Your task to perform on an android device: install app "Mercado Libre" Image 0: 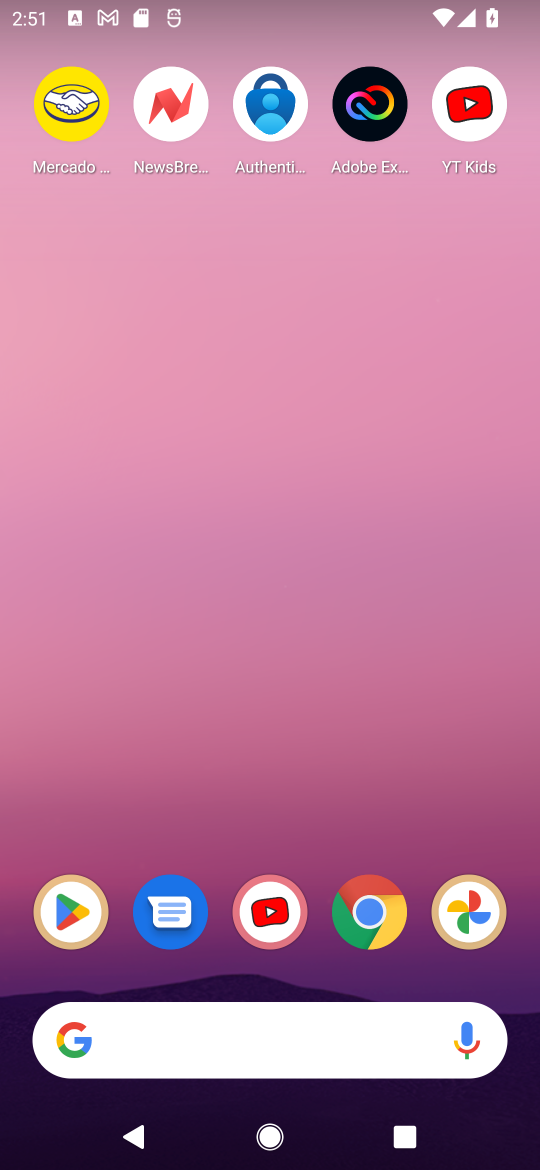
Step 0: click (79, 910)
Your task to perform on an android device: install app "Mercado Libre" Image 1: 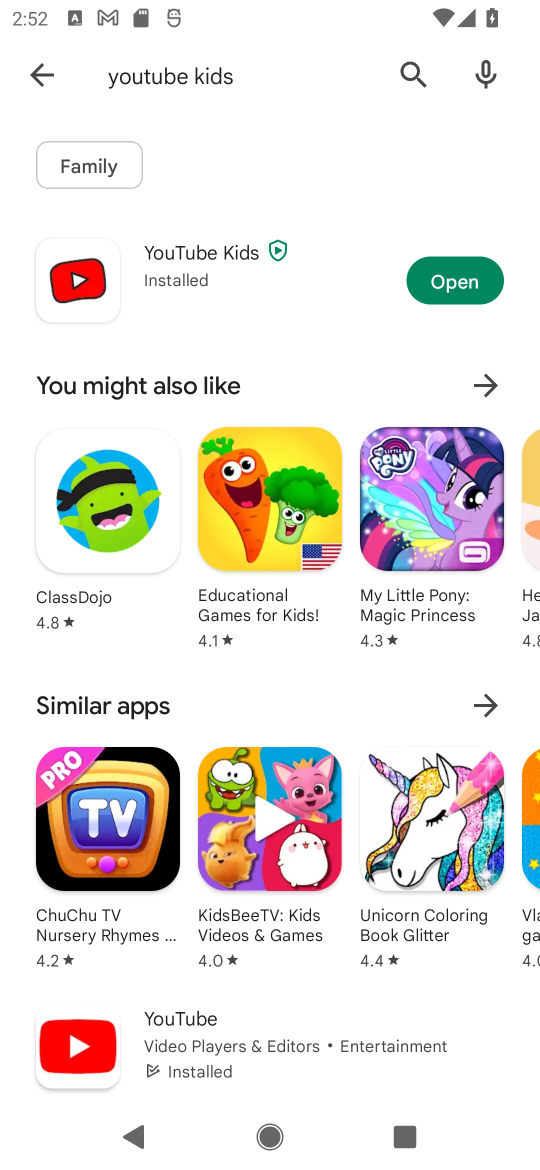
Step 1: click (403, 86)
Your task to perform on an android device: install app "Mercado Libre" Image 2: 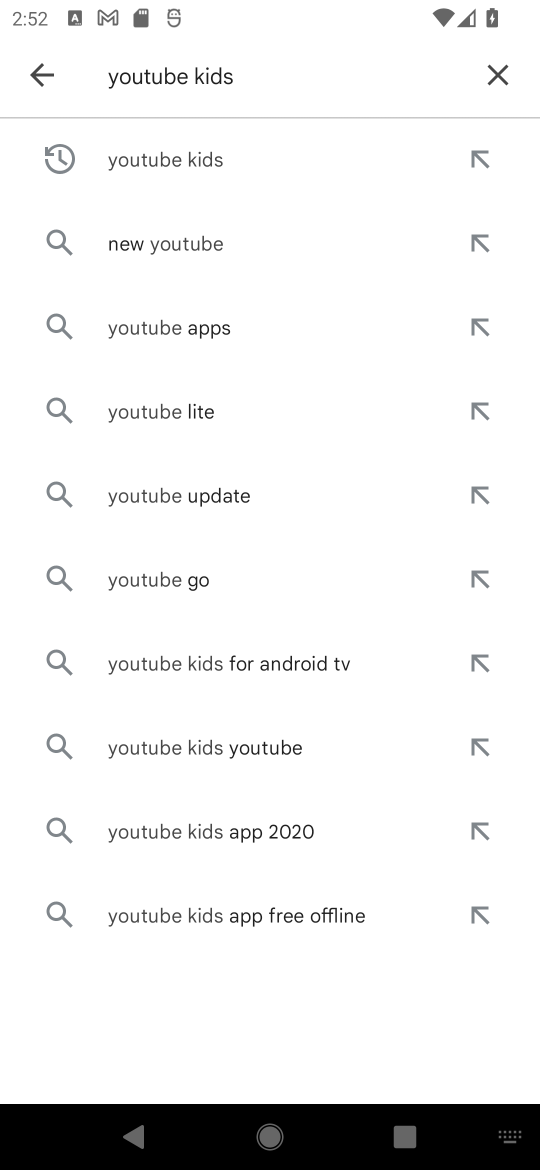
Step 2: click (508, 75)
Your task to perform on an android device: install app "Mercado Libre" Image 3: 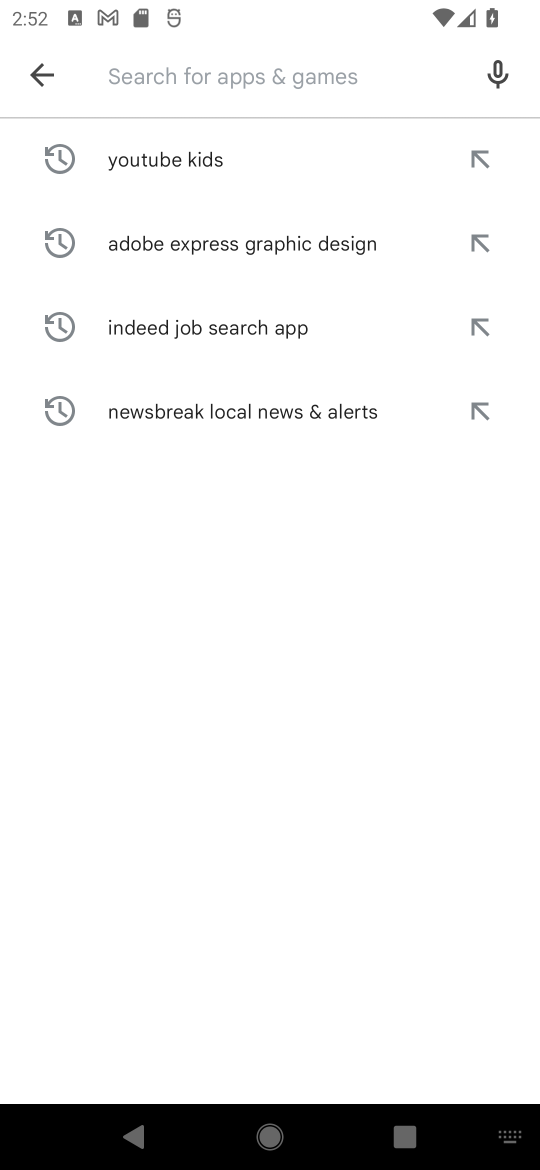
Step 3: click (181, 76)
Your task to perform on an android device: install app "Mercado Libre" Image 4: 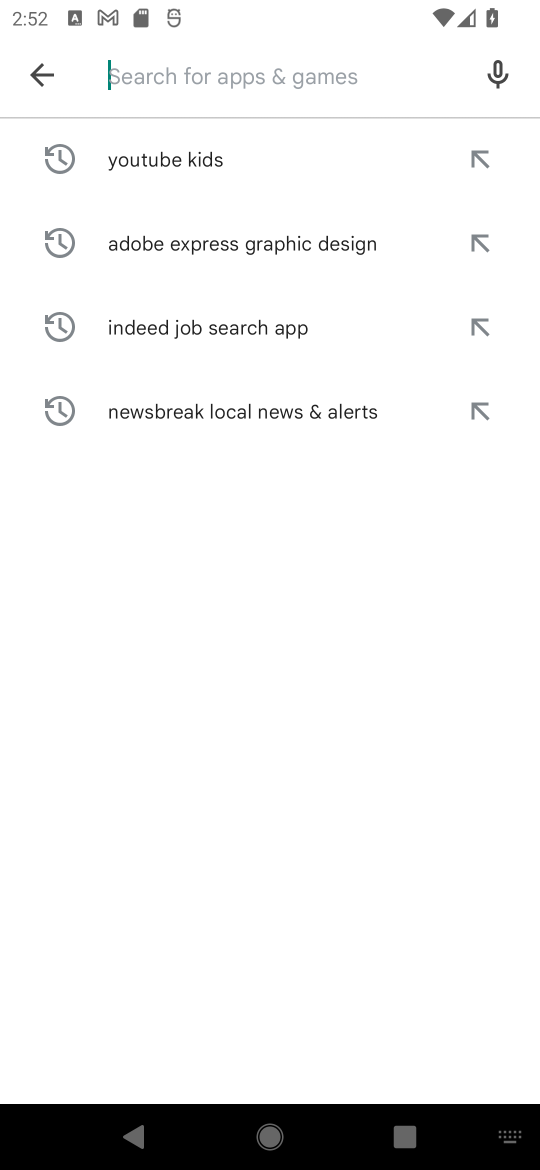
Step 4: type "Mercado Libre"
Your task to perform on an android device: install app "Mercado Libre" Image 5: 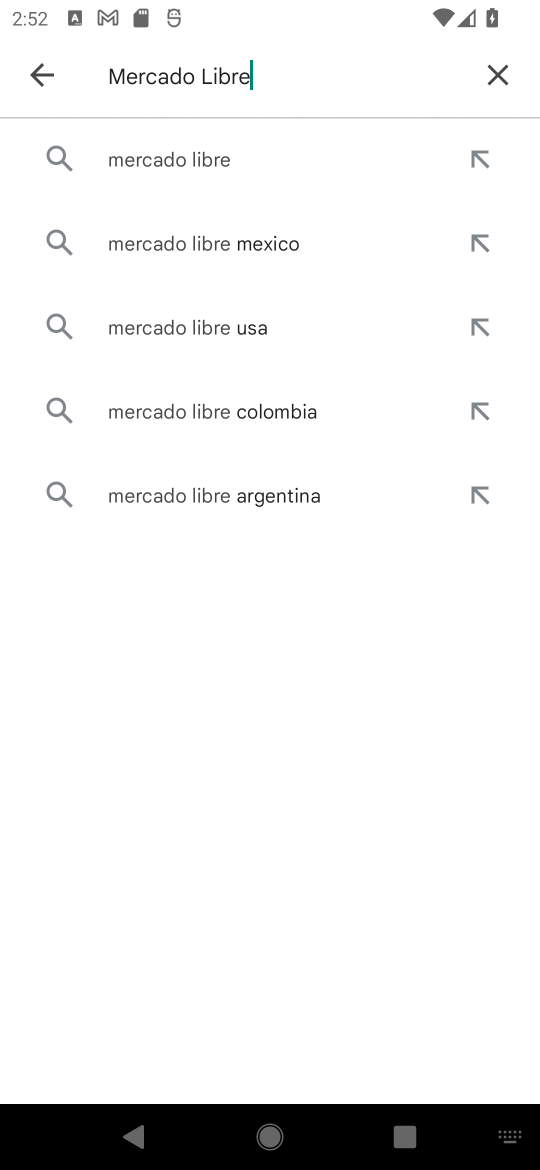
Step 5: click (166, 167)
Your task to perform on an android device: install app "Mercado Libre" Image 6: 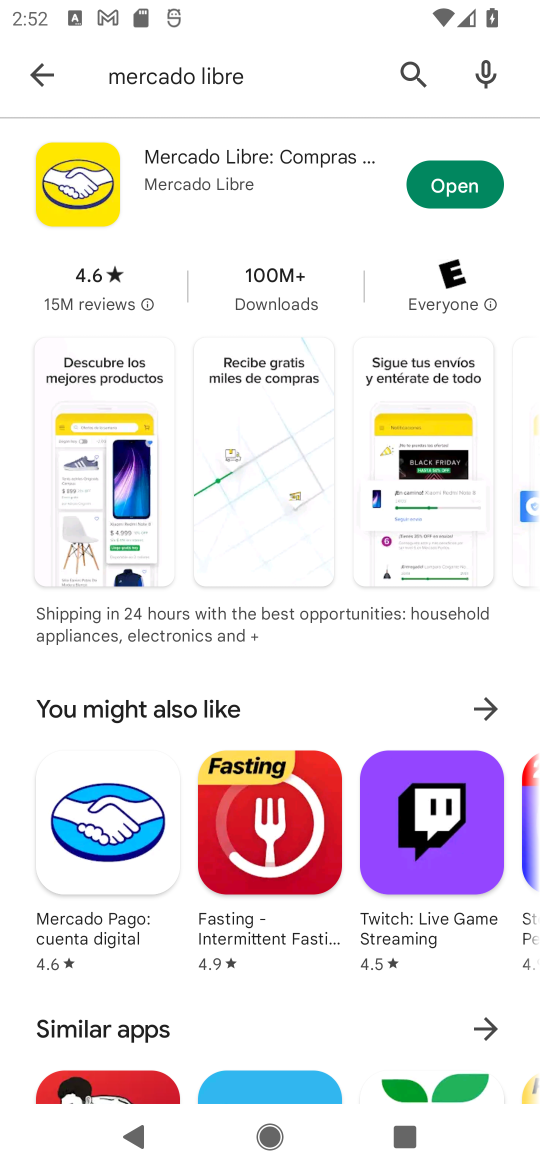
Step 6: task complete